Your task to perform on an android device: add a label to a message in the gmail app Image 0: 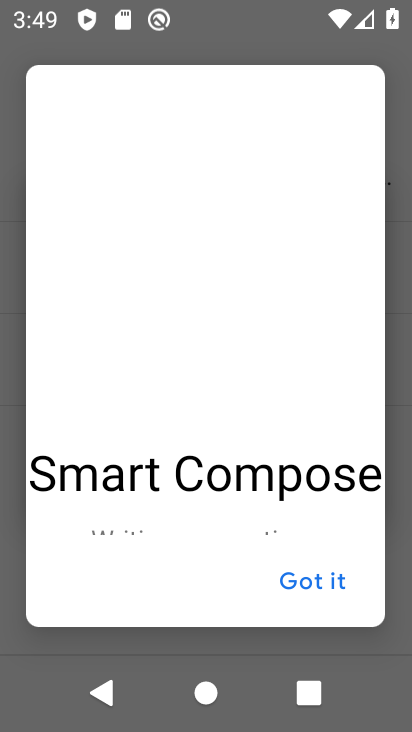
Step 0: press home button
Your task to perform on an android device: add a label to a message in the gmail app Image 1: 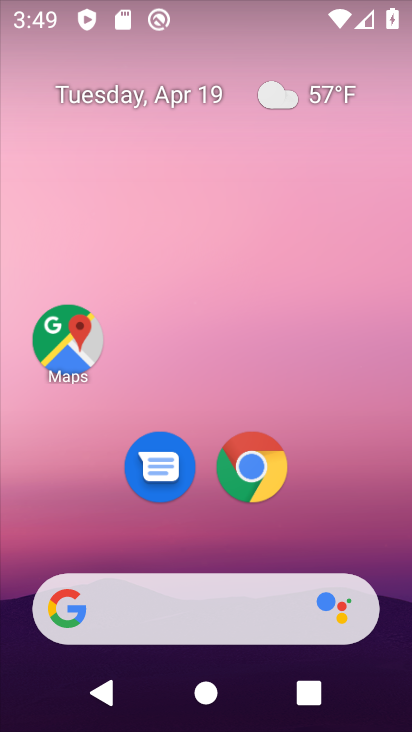
Step 1: drag from (212, 462) to (212, 252)
Your task to perform on an android device: add a label to a message in the gmail app Image 2: 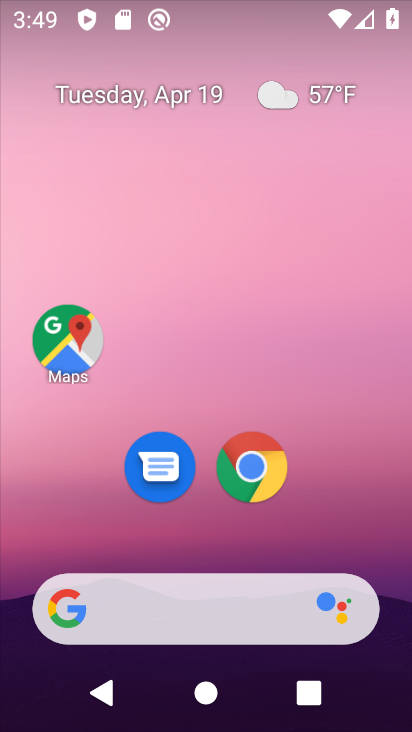
Step 2: drag from (238, 485) to (244, 214)
Your task to perform on an android device: add a label to a message in the gmail app Image 3: 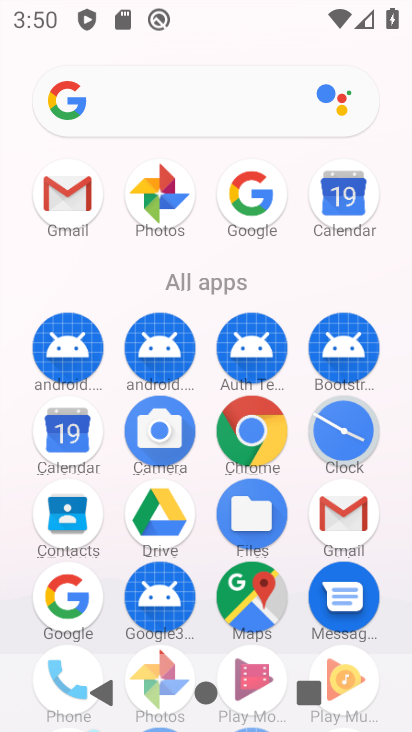
Step 3: drag from (218, 526) to (241, 239)
Your task to perform on an android device: add a label to a message in the gmail app Image 4: 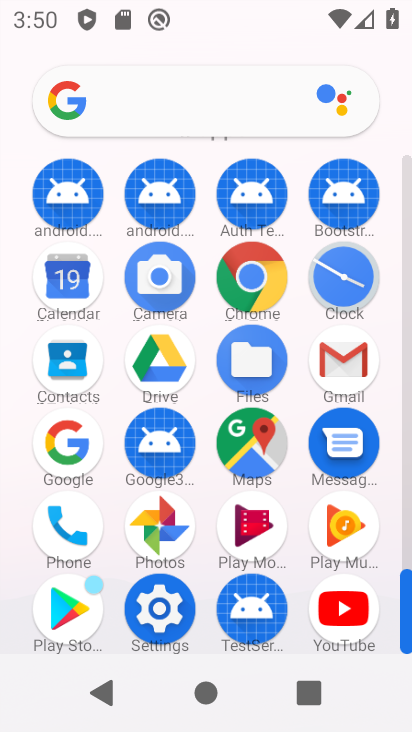
Step 4: click (339, 395)
Your task to perform on an android device: add a label to a message in the gmail app Image 5: 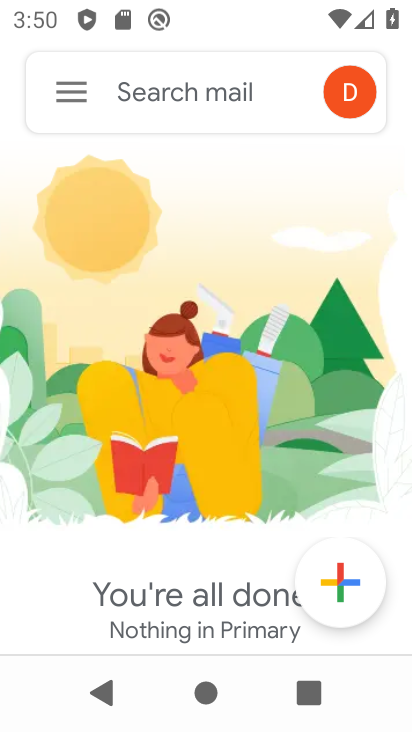
Step 5: click (84, 99)
Your task to perform on an android device: add a label to a message in the gmail app Image 6: 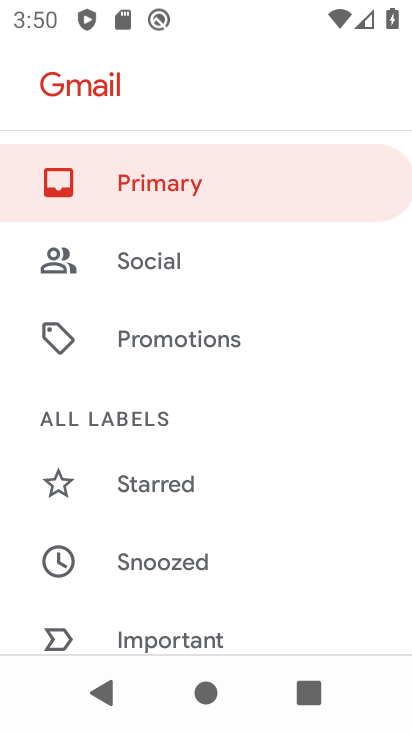
Step 6: drag from (194, 487) to (183, 228)
Your task to perform on an android device: add a label to a message in the gmail app Image 7: 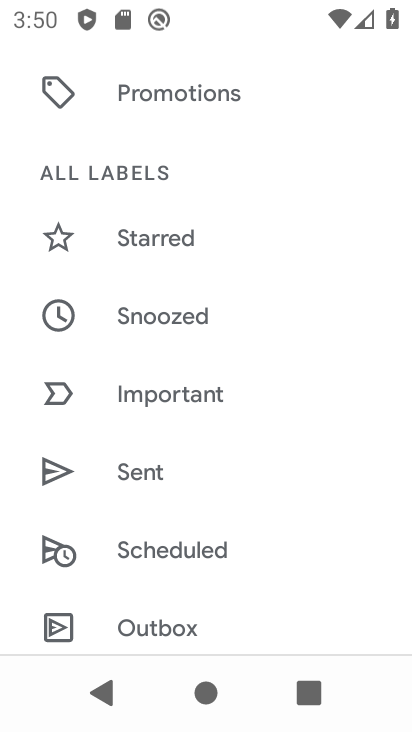
Step 7: drag from (213, 529) to (197, 262)
Your task to perform on an android device: add a label to a message in the gmail app Image 8: 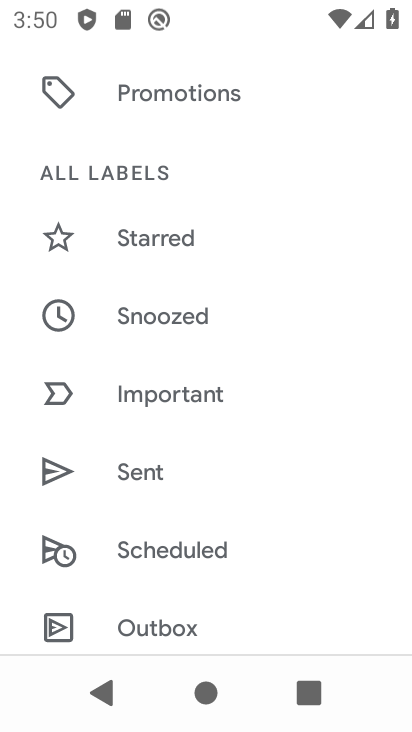
Step 8: drag from (244, 491) to (211, 183)
Your task to perform on an android device: add a label to a message in the gmail app Image 9: 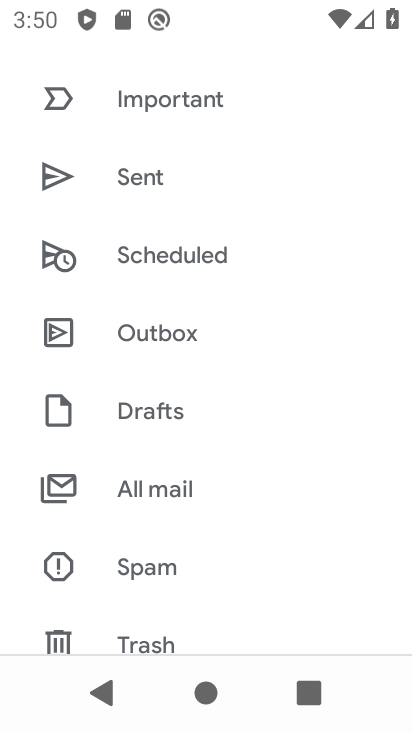
Step 9: click (224, 477)
Your task to perform on an android device: add a label to a message in the gmail app Image 10: 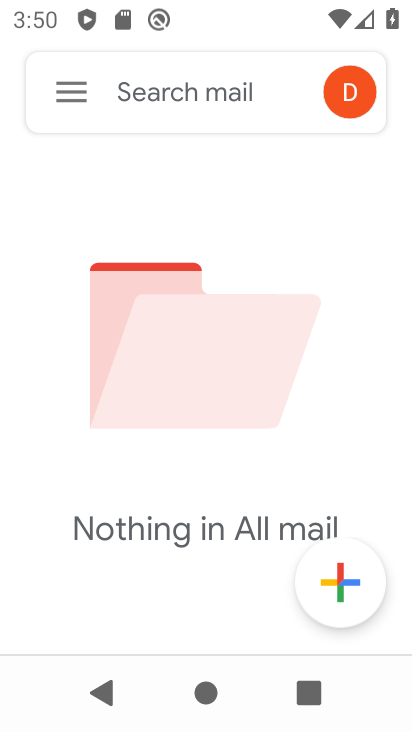
Step 10: task complete